Your task to perform on an android device: Open settings Image 0: 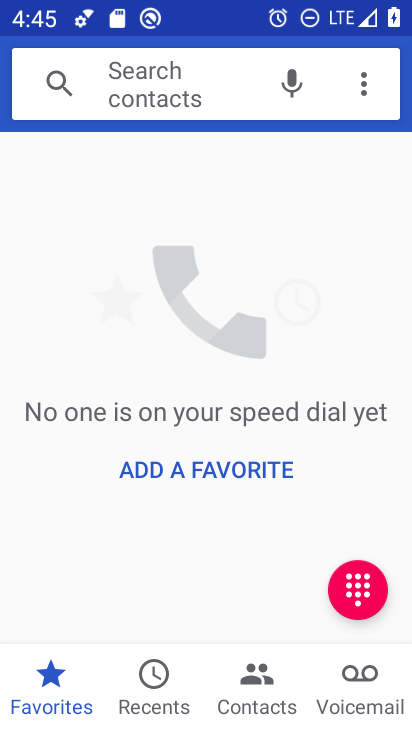
Step 0: press home button
Your task to perform on an android device: Open settings Image 1: 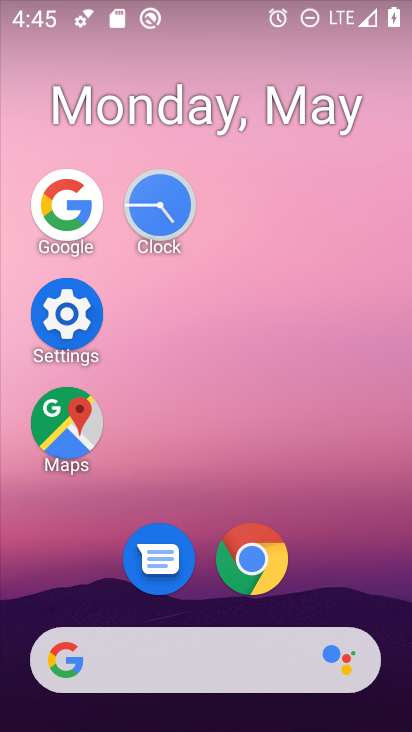
Step 1: click (88, 327)
Your task to perform on an android device: Open settings Image 2: 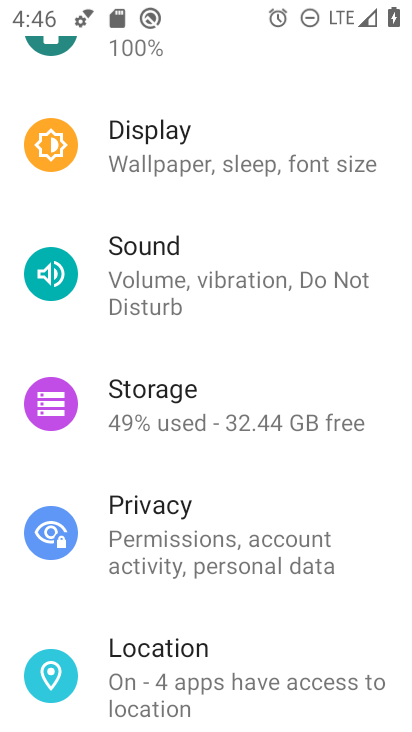
Step 2: task complete